Your task to perform on an android device: turn on notifications settings in the gmail app Image 0: 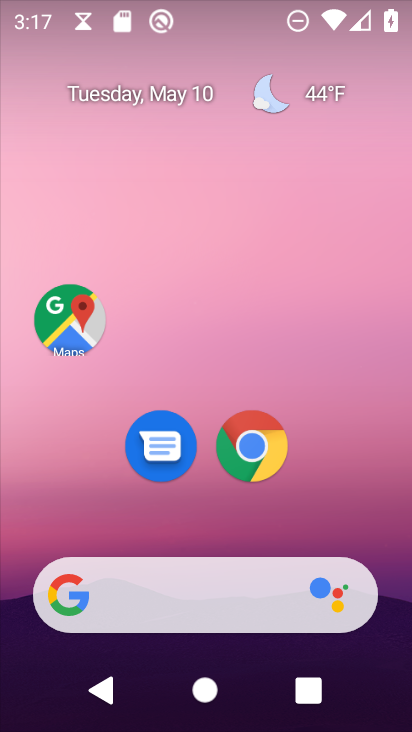
Step 0: drag from (365, 507) to (365, 6)
Your task to perform on an android device: turn on notifications settings in the gmail app Image 1: 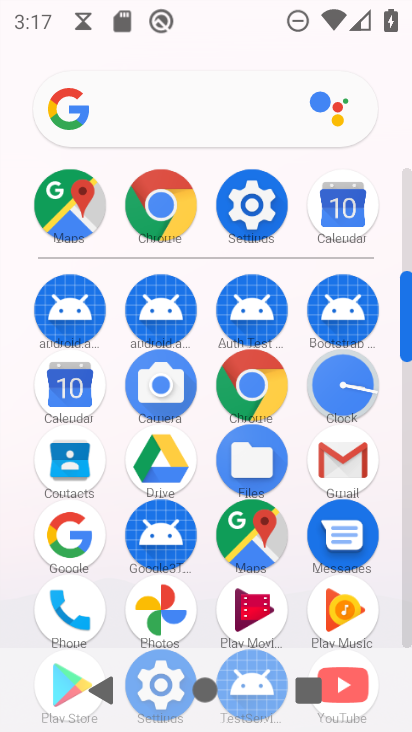
Step 1: click (338, 465)
Your task to perform on an android device: turn on notifications settings in the gmail app Image 2: 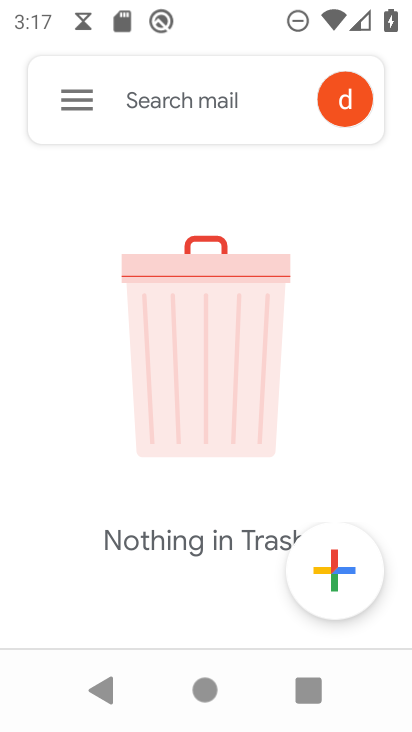
Step 2: click (84, 105)
Your task to perform on an android device: turn on notifications settings in the gmail app Image 3: 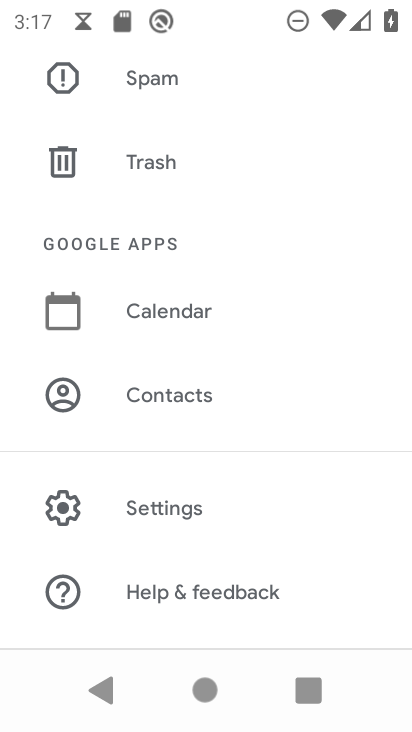
Step 3: click (122, 494)
Your task to perform on an android device: turn on notifications settings in the gmail app Image 4: 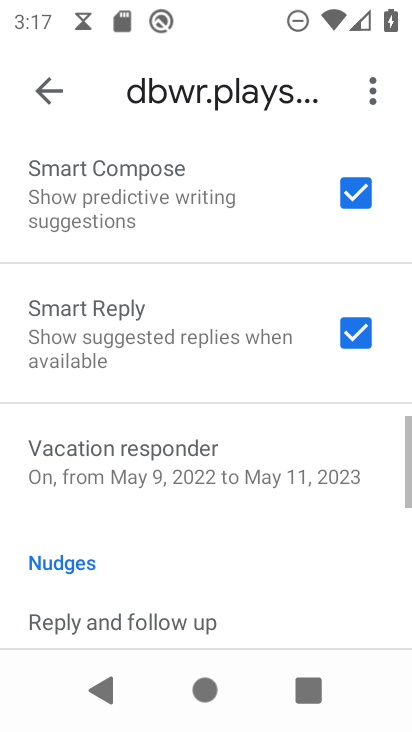
Step 4: drag from (208, 566) to (216, 193)
Your task to perform on an android device: turn on notifications settings in the gmail app Image 5: 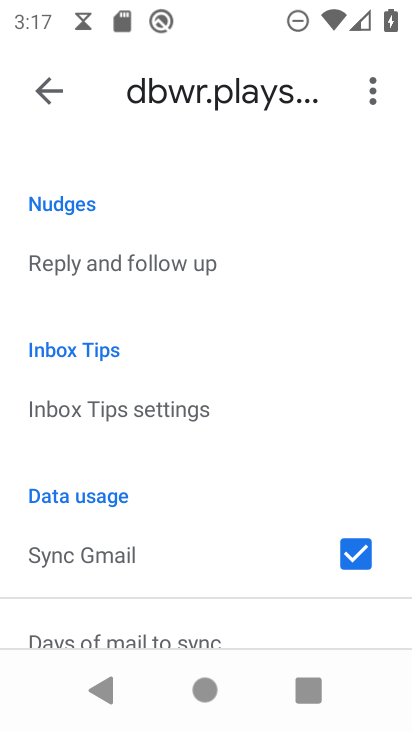
Step 5: drag from (180, 544) to (167, 156)
Your task to perform on an android device: turn on notifications settings in the gmail app Image 6: 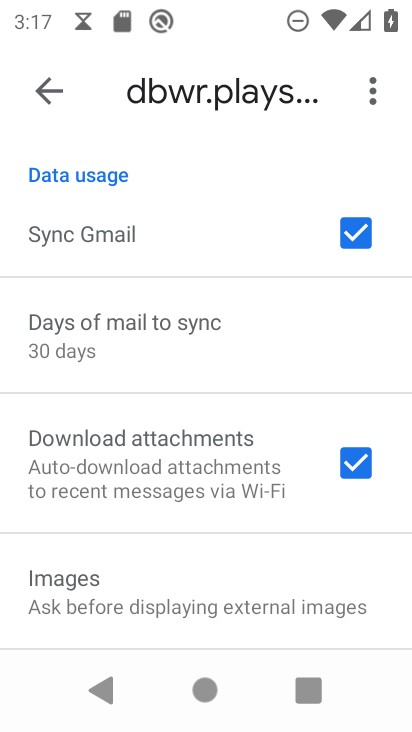
Step 6: drag from (214, 540) to (157, 161)
Your task to perform on an android device: turn on notifications settings in the gmail app Image 7: 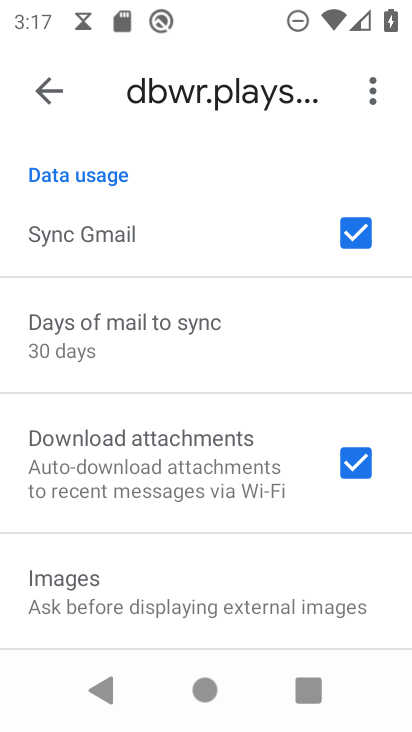
Step 7: drag from (157, 161) to (212, 565)
Your task to perform on an android device: turn on notifications settings in the gmail app Image 8: 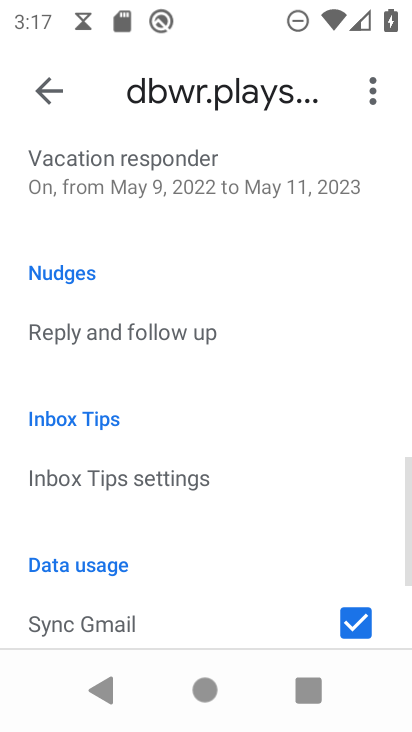
Step 8: drag from (214, 214) to (256, 598)
Your task to perform on an android device: turn on notifications settings in the gmail app Image 9: 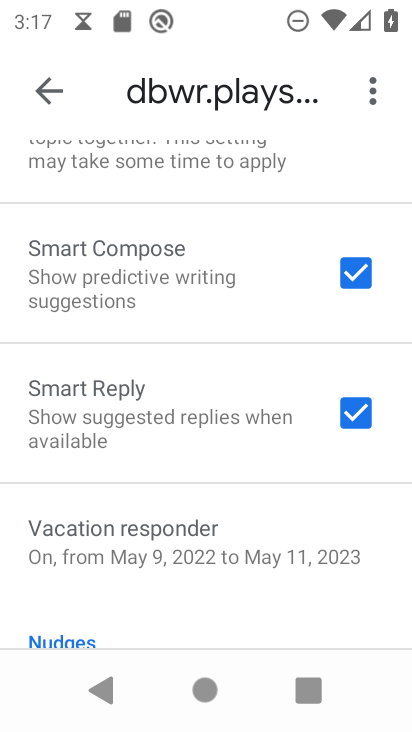
Step 9: drag from (257, 280) to (269, 616)
Your task to perform on an android device: turn on notifications settings in the gmail app Image 10: 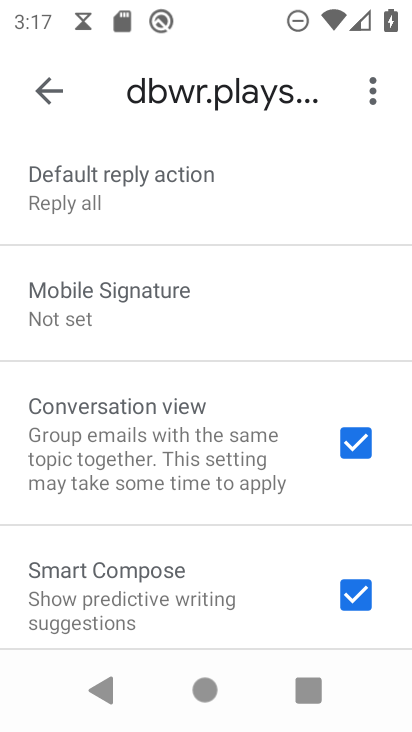
Step 10: drag from (241, 295) to (250, 616)
Your task to perform on an android device: turn on notifications settings in the gmail app Image 11: 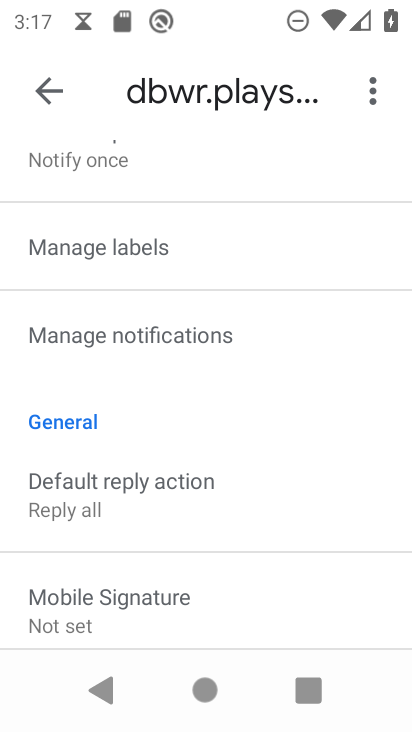
Step 11: drag from (198, 220) to (213, 533)
Your task to perform on an android device: turn on notifications settings in the gmail app Image 12: 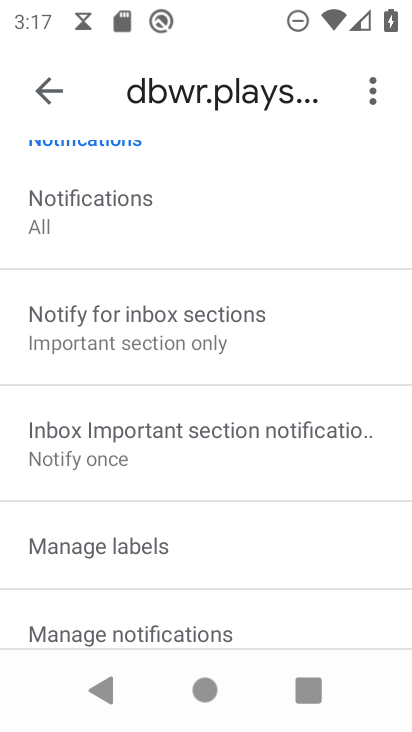
Step 12: click (115, 208)
Your task to perform on an android device: turn on notifications settings in the gmail app Image 13: 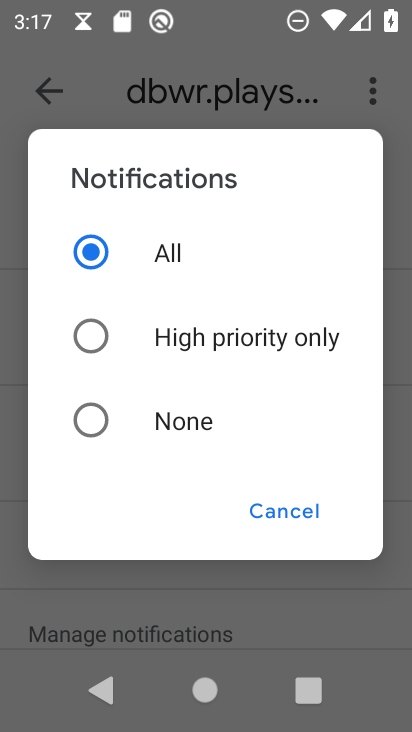
Step 13: task complete